Your task to perform on an android device: empty trash in the gmail app Image 0: 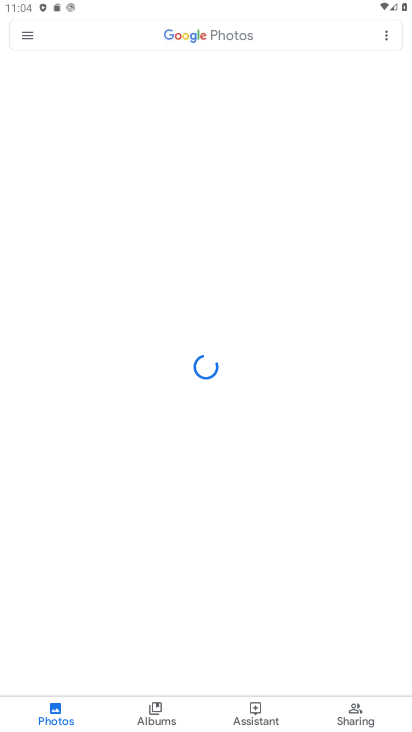
Step 0: press home button
Your task to perform on an android device: empty trash in the gmail app Image 1: 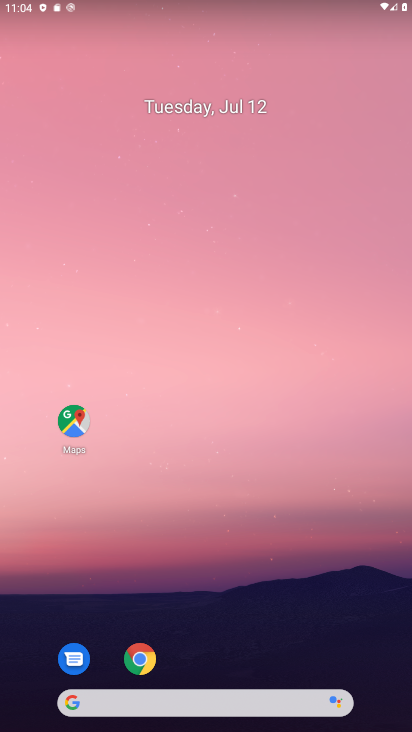
Step 1: drag from (324, 644) to (129, 36)
Your task to perform on an android device: empty trash in the gmail app Image 2: 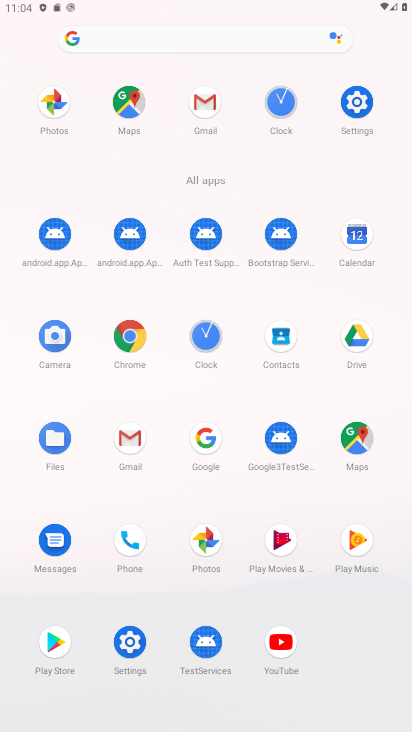
Step 2: click (201, 106)
Your task to perform on an android device: empty trash in the gmail app Image 3: 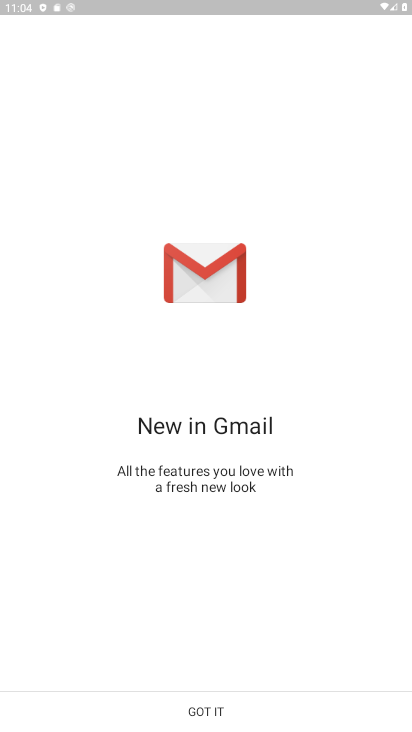
Step 3: click (204, 711)
Your task to perform on an android device: empty trash in the gmail app Image 4: 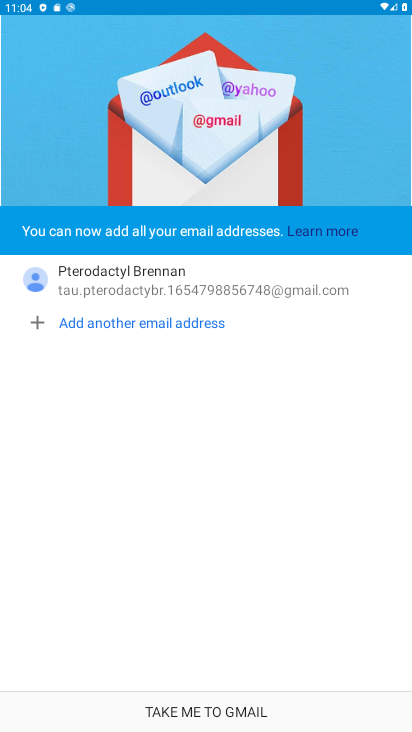
Step 4: click (204, 711)
Your task to perform on an android device: empty trash in the gmail app Image 5: 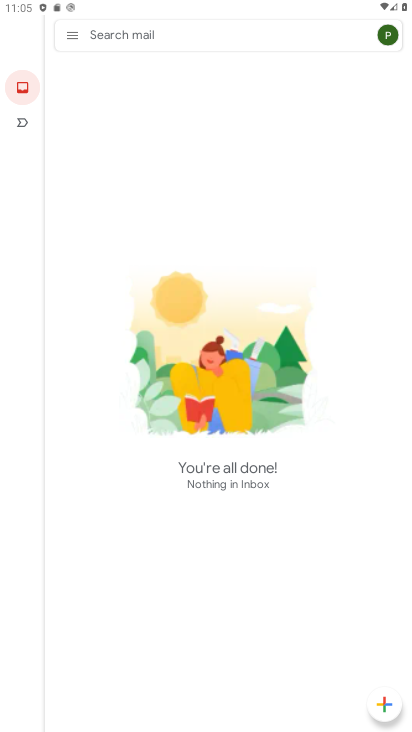
Step 5: click (70, 41)
Your task to perform on an android device: empty trash in the gmail app Image 6: 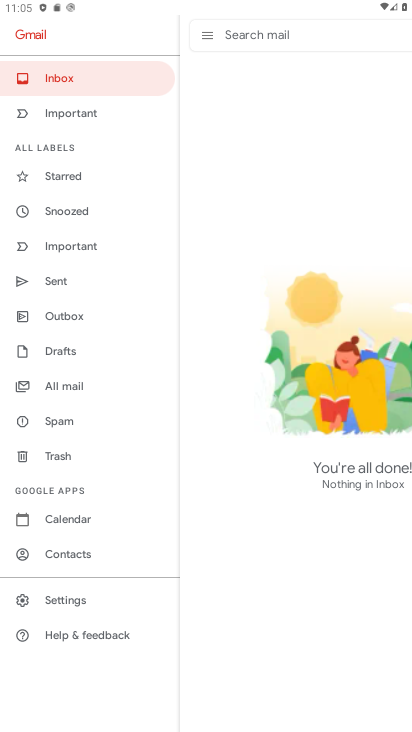
Step 6: click (67, 457)
Your task to perform on an android device: empty trash in the gmail app Image 7: 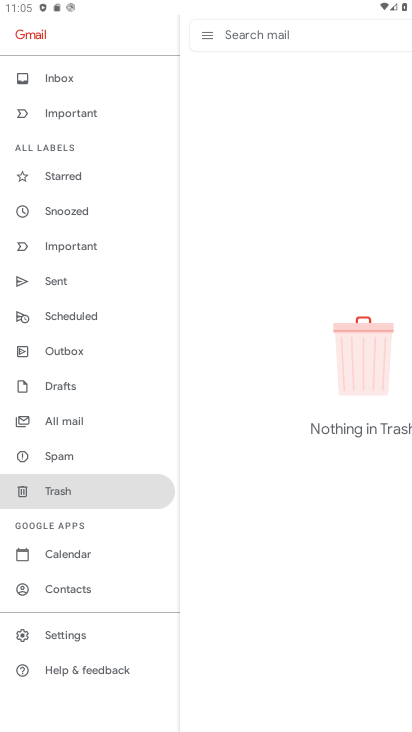
Step 7: task complete